Your task to perform on an android device: What's the weather? Image 0: 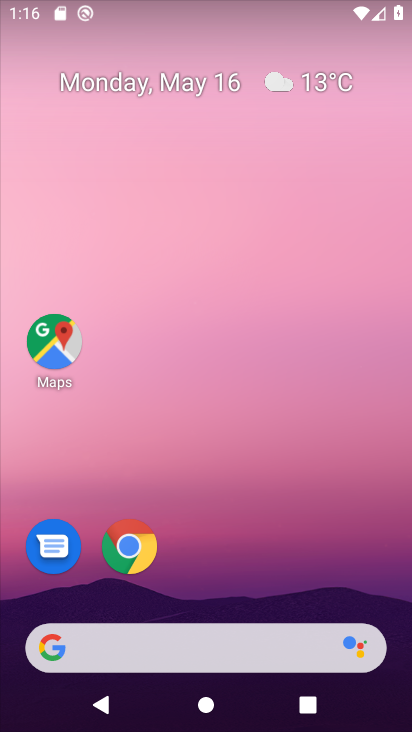
Step 0: click (278, 87)
Your task to perform on an android device: What's the weather? Image 1: 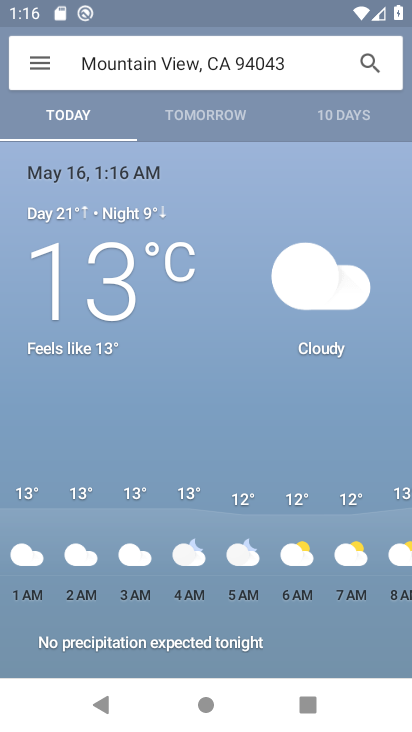
Step 1: task complete